Your task to perform on an android device: Search for sushi restaurants on Maps Image 0: 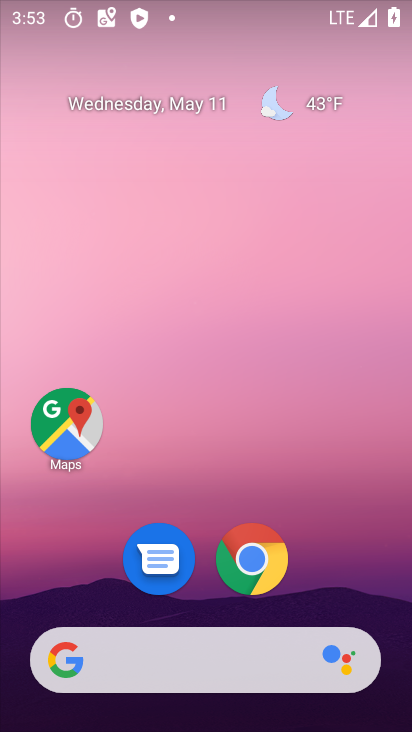
Step 0: click (60, 414)
Your task to perform on an android device: Search for sushi restaurants on Maps Image 1: 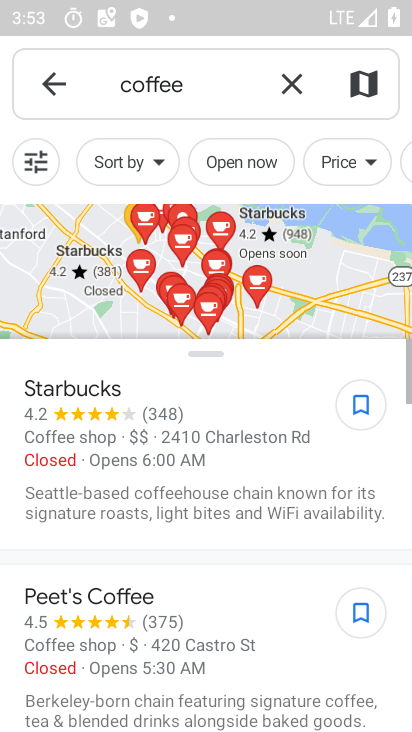
Step 1: click (295, 89)
Your task to perform on an android device: Search for sushi restaurants on Maps Image 2: 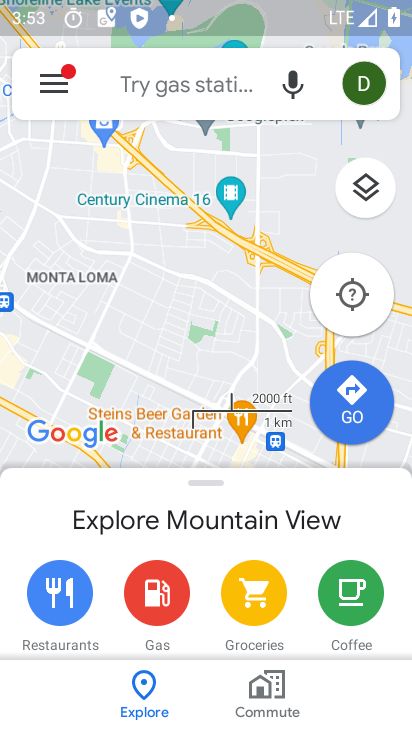
Step 2: click (164, 85)
Your task to perform on an android device: Search for sushi restaurants on Maps Image 3: 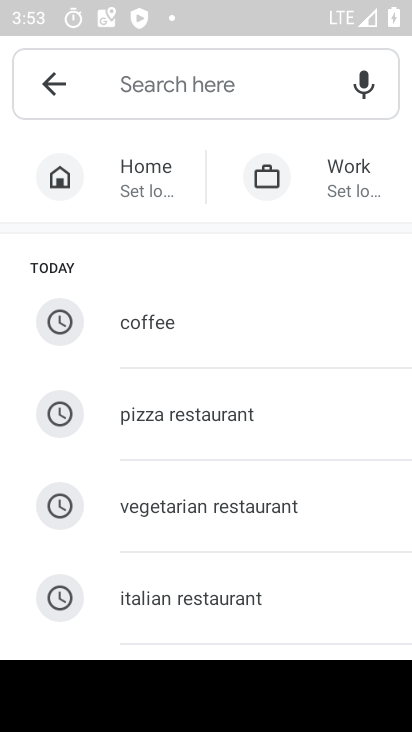
Step 3: drag from (286, 594) to (278, 288)
Your task to perform on an android device: Search for sushi restaurants on Maps Image 4: 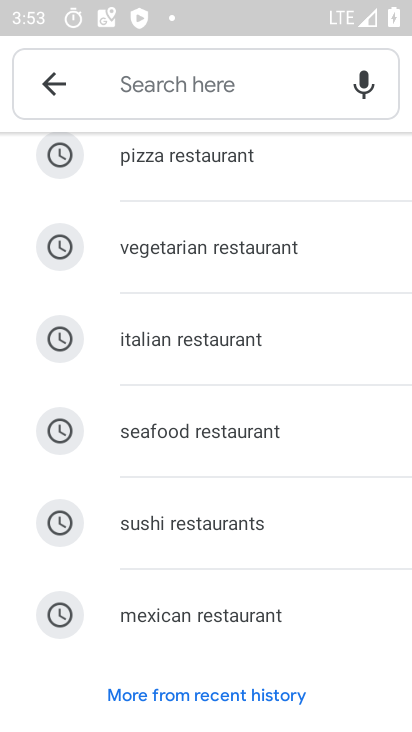
Step 4: click (240, 529)
Your task to perform on an android device: Search for sushi restaurants on Maps Image 5: 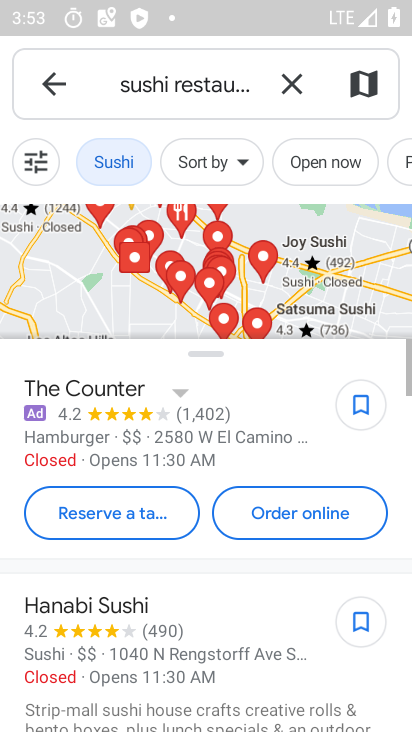
Step 5: task complete